Your task to perform on an android device: Go to location settings Image 0: 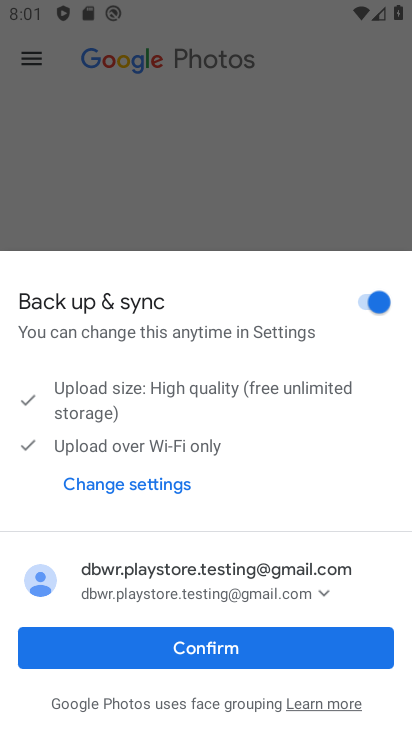
Step 0: press home button
Your task to perform on an android device: Go to location settings Image 1: 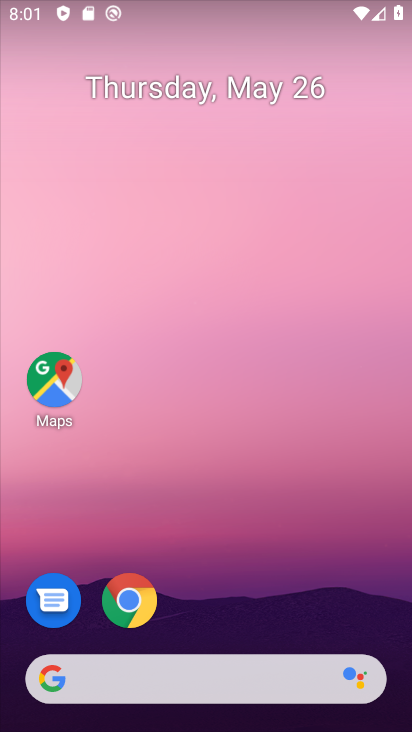
Step 1: drag from (204, 629) to (214, 212)
Your task to perform on an android device: Go to location settings Image 2: 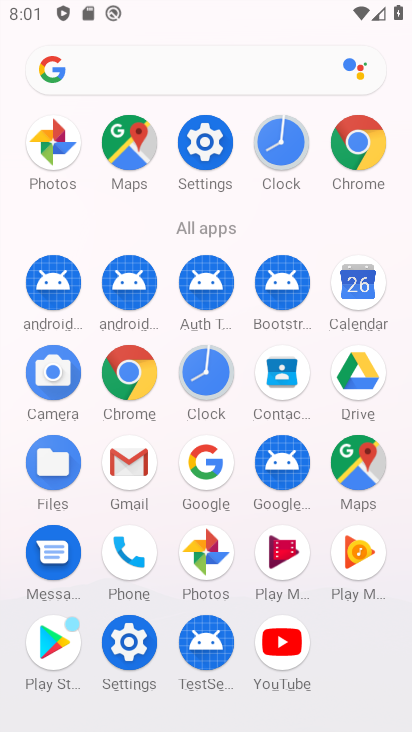
Step 2: click (204, 134)
Your task to perform on an android device: Go to location settings Image 3: 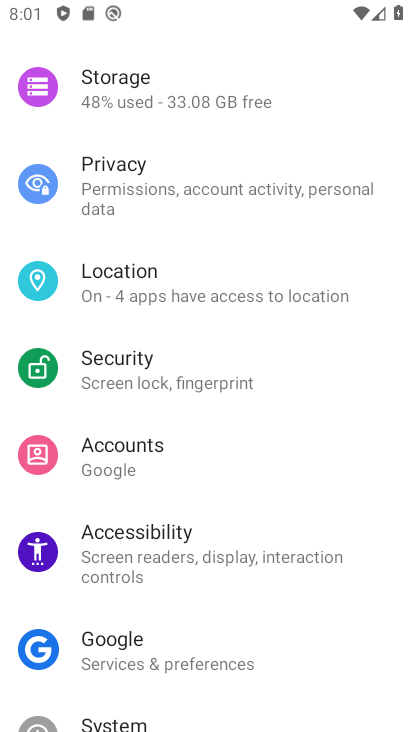
Step 3: click (65, 307)
Your task to perform on an android device: Go to location settings Image 4: 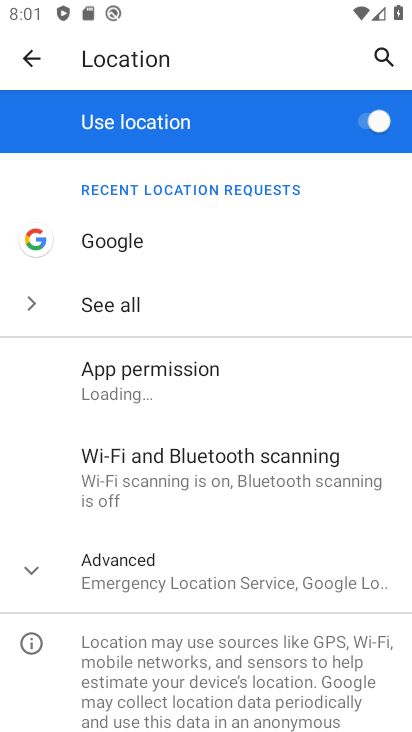
Step 4: task complete